Your task to perform on an android device: toggle pop-ups in chrome Image 0: 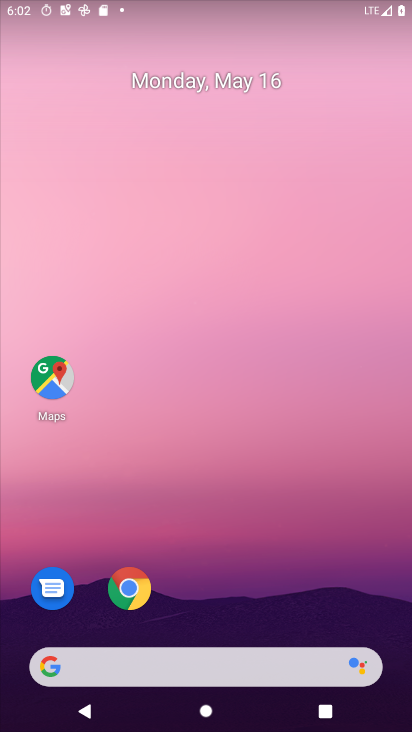
Step 0: click (130, 578)
Your task to perform on an android device: toggle pop-ups in chrome Image 1: 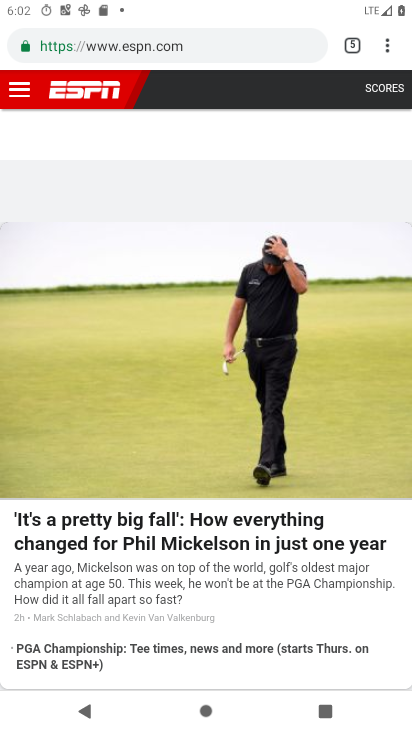
Step 1: click (389, 44)
Your task to perform on an android device: toggle pop-ups in chrome Image 2: 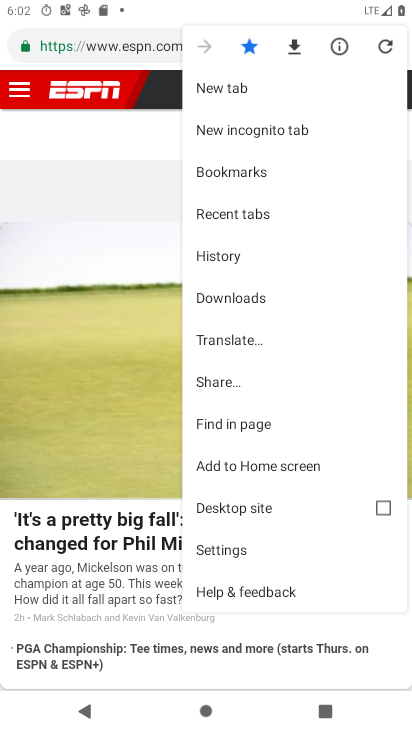
Step 2: click (291, 544)
Your task to perform on an android device: toggle pop-ups in chrome Image 3: 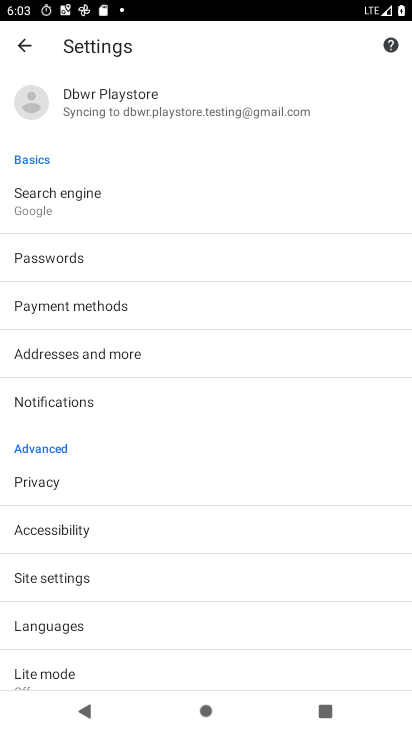
Step 3: click (166, 579)
Your task to perform on an android device: toggle pop-ups in chrome Image 4: 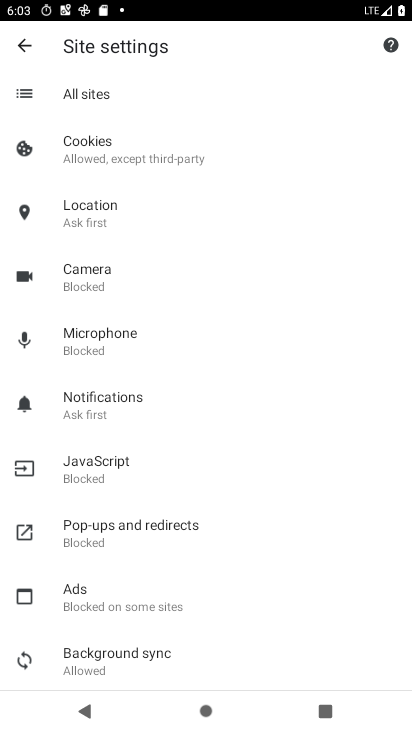
Step 4: click (157, 524)
Your task to perform on an android device: toggle pop-ups in chrome Image 5: 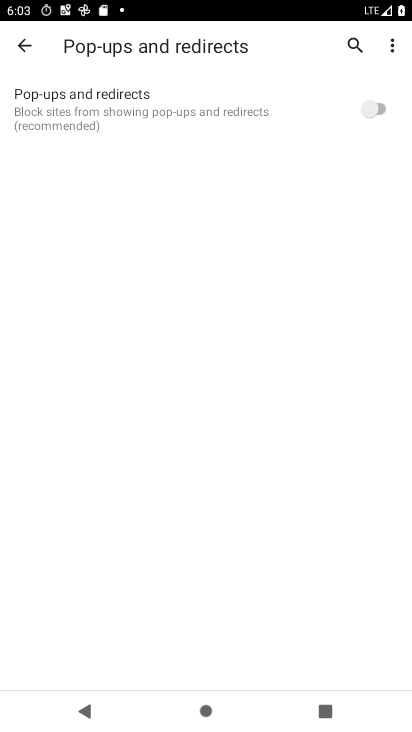
Step 5: click (375, 100)
Your task to perform on an android device: toggle pop-ups in chrome Image 6: 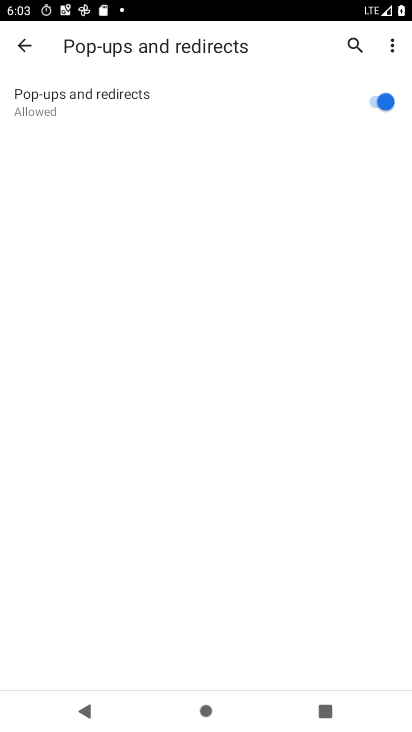
Step 6: task complete